Your task to perform on an android device: Open display settings Image 0: 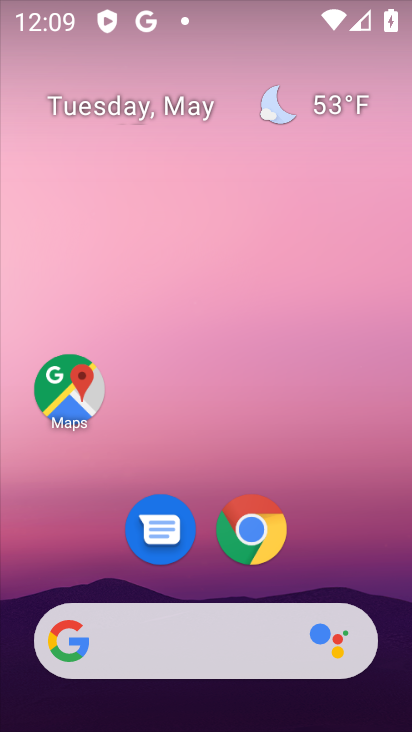
Step 0: drag from (228, 722) to (230, 184)
Your task to perform on an android device: Open display settings Image 1: 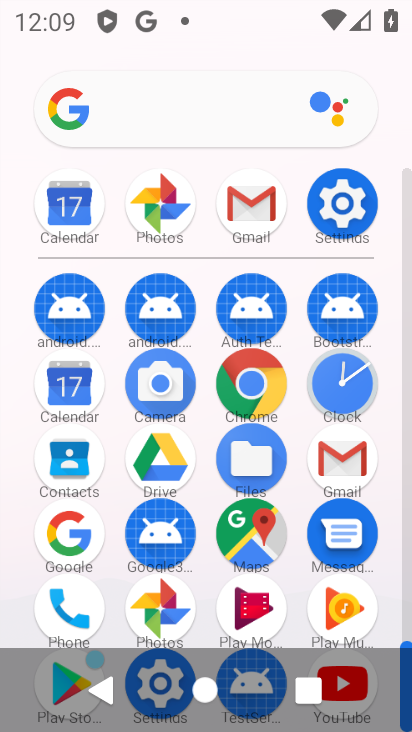
Step 1: click (335, 204)
Your task to perform on an android device: Open display settings Image 2: 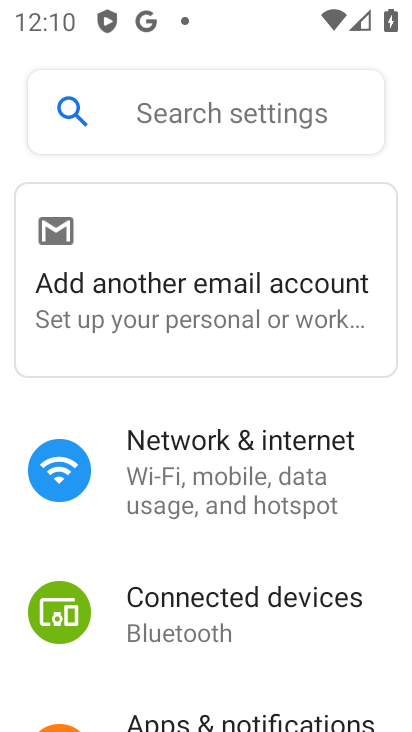
Step 2: drag from (181, 655) to (186, 289)
Your task to perform on an android device: Open display settings Image 3: 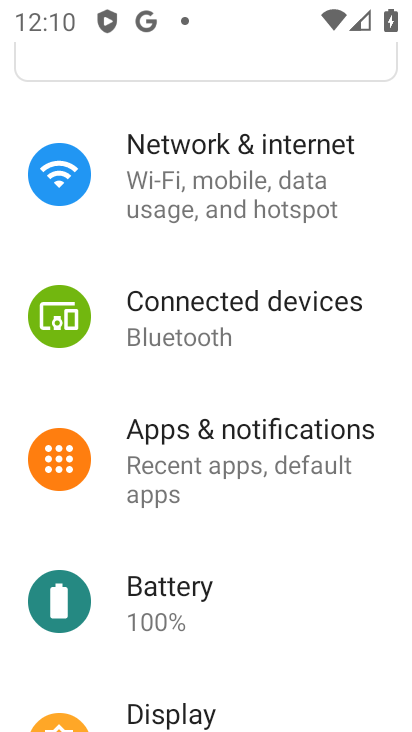
Step 3: drag from (220, 644) to (211, 314)
Your task to perform on an android device: Open display settings Image 4: 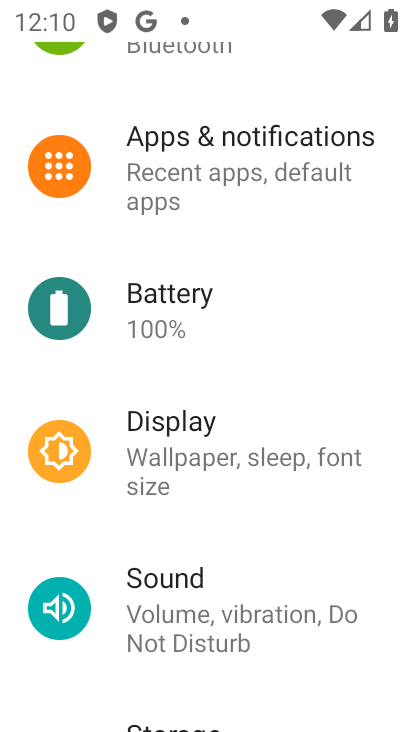
Step 4: click (171, 439)
Your task to perform on an android device: Open display settings Image 5: 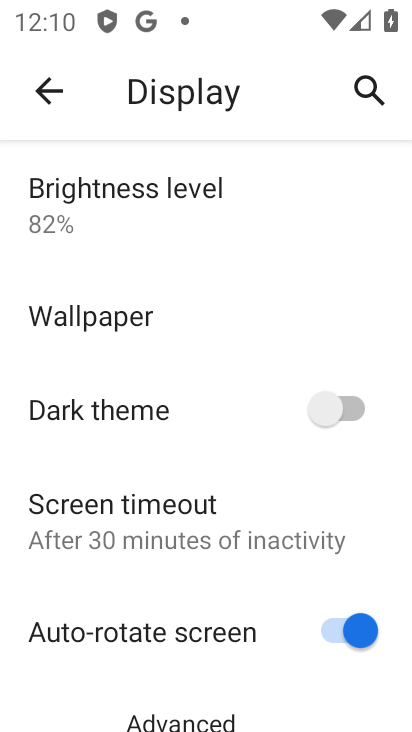
Step 5: task complete